Your task to perform on an android device: turn on javascript in the chrome app Image 0: 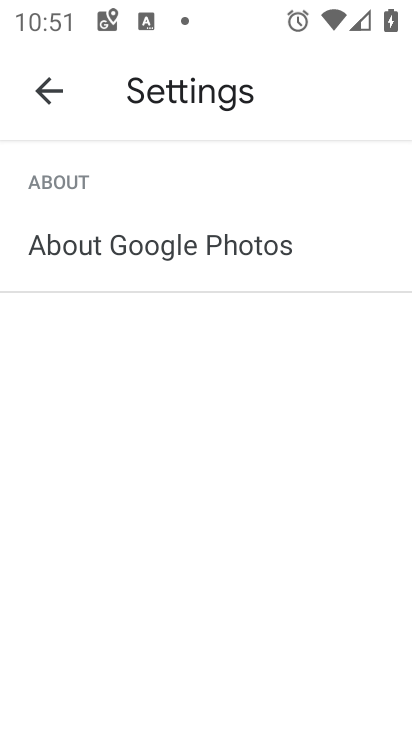
Step 0: drag from (256, 625) to (302, 345)
Your task to perform on an android device: turn on javascript in the chrome app Image 1: 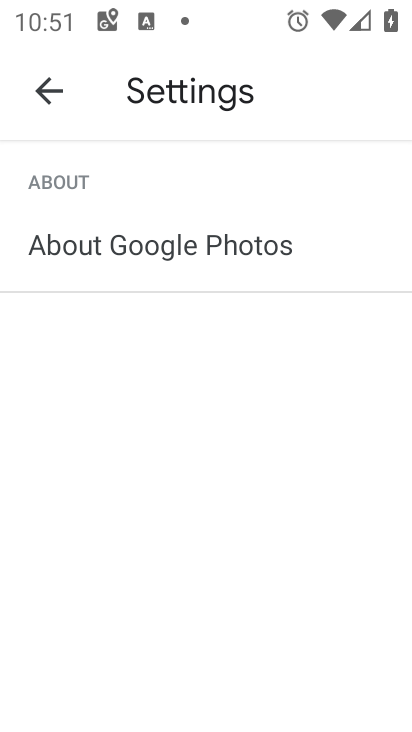
Step 1: press home button
Your task to perform on an android device: turn on javascript in the chrome app Image 2: 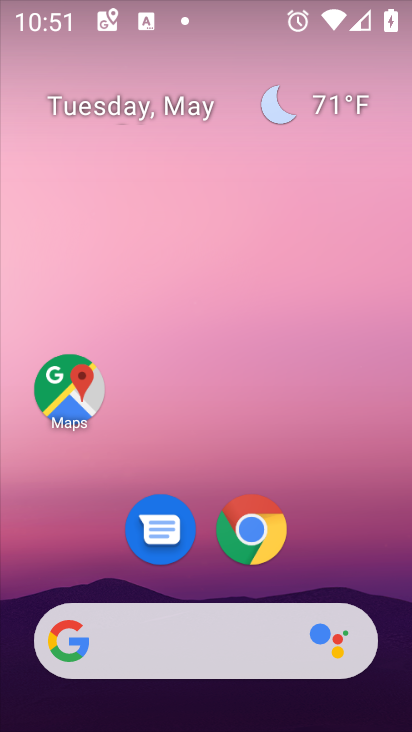
Step 2: drag from (211, 540) to (238, 129)
Your task to perform on an android device: turn on javascript in the chrome app Image 3: 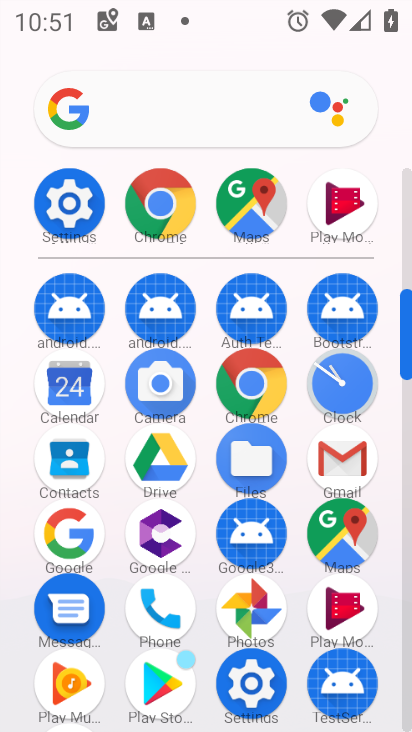
Step 3: click (164, 218)
Your task to perform on an android device: turn on javascript in the chrome app Image 4: 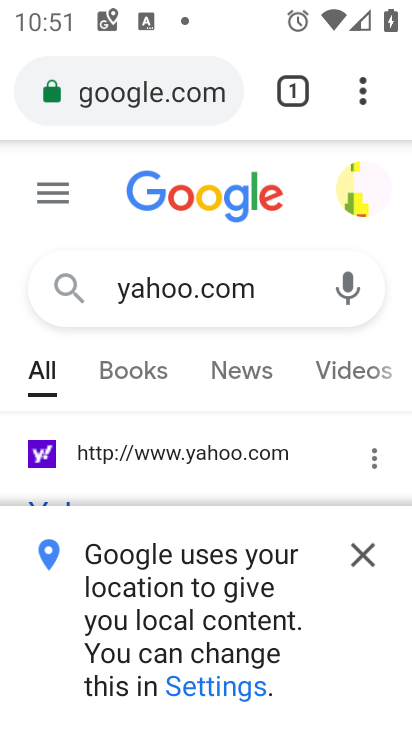
Step 4: click (369, 97)
Your task to perform on an android device: turn on javascript in the chrome app Image 5: 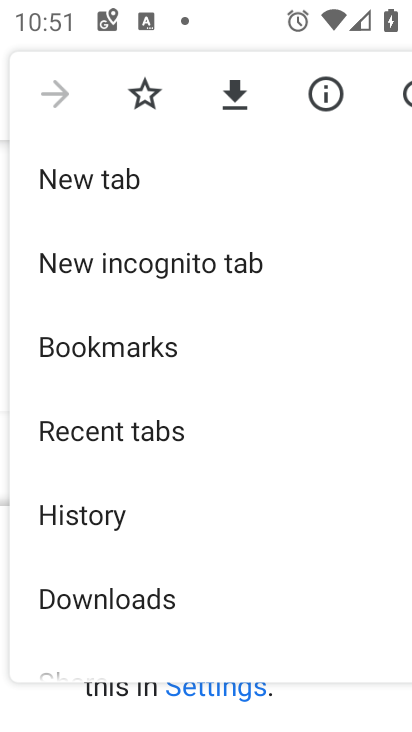
Step 5: drag from (179, 574) to (259, 129)
Your task to perform on an android device: turn on javascript in the chrome app Image 6: 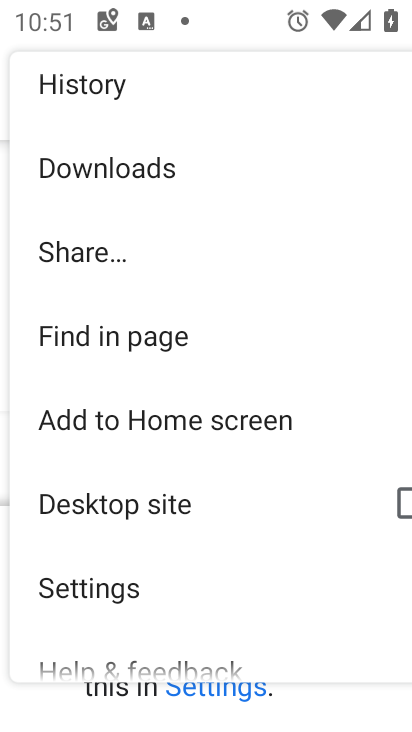
Step 6: click (143, 593)
Your task to perform on an android device: turn on javascript in the chrome app Image 7: 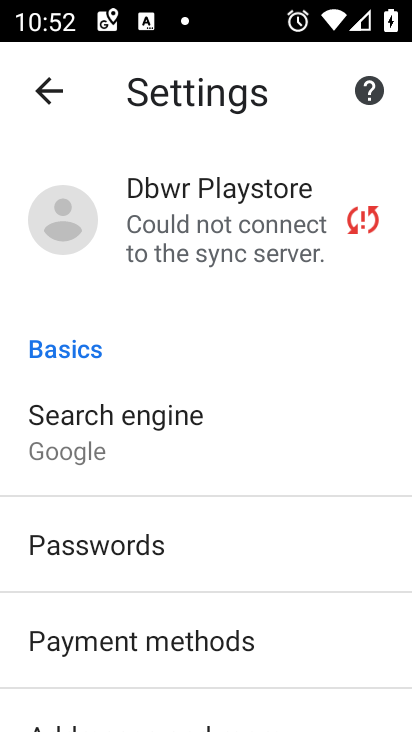
Step 7: drag from (150, 600) to (258, 221)
Your task to perform on an android device: turn on javascript in the chrome app Image 8: 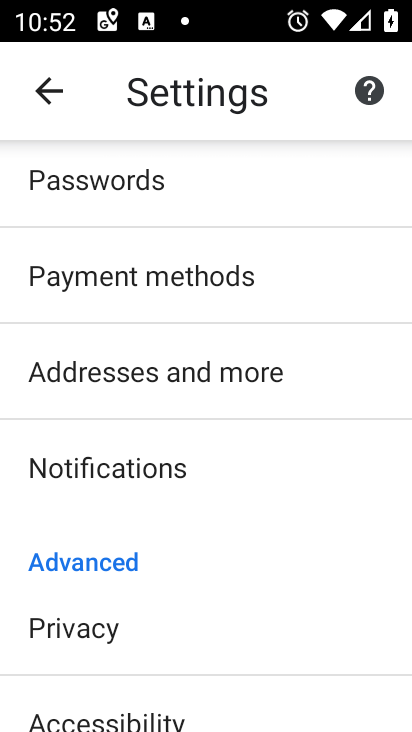
Step 8: drag from (167, 569) to (230, 243)
Your task to perform on an android device: turn on javascript in the chrome app Image 9: 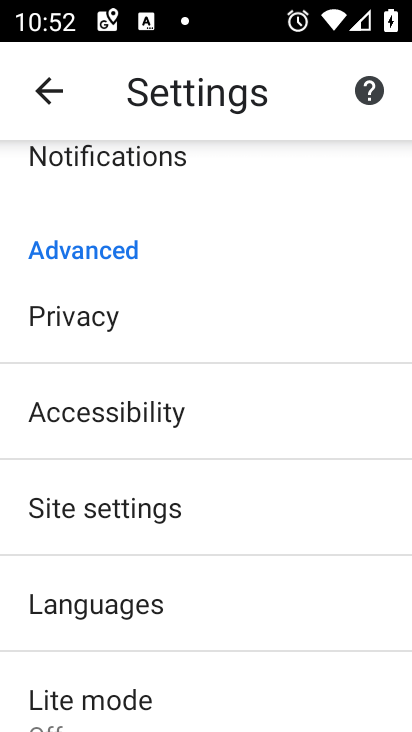
Step 9: click (149, 515)
Your task to perform on an android device: turn on javascript in the chrome app Image 10: 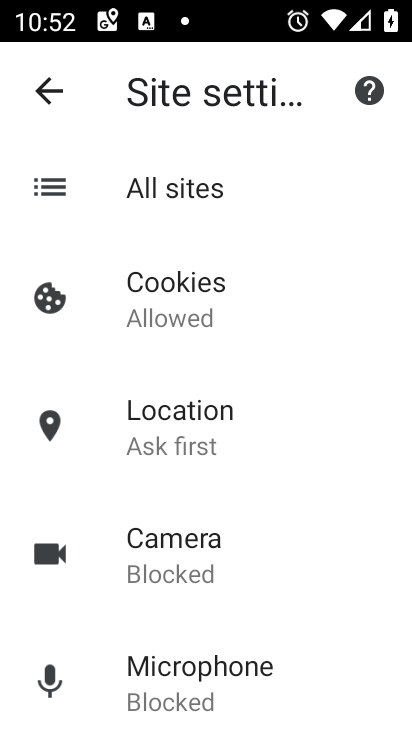
Step 10: drag from (201, 570) to (202, 169)
Your task to perform on an android device: turn on javascript in the chrome app Image 11: 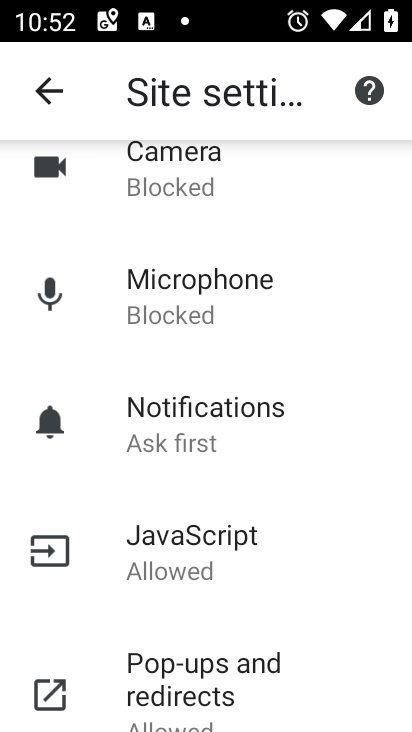
Step 11: click (188, 565)
Your task to perform on an android device: turn on javascript in the chrome app Image 12: 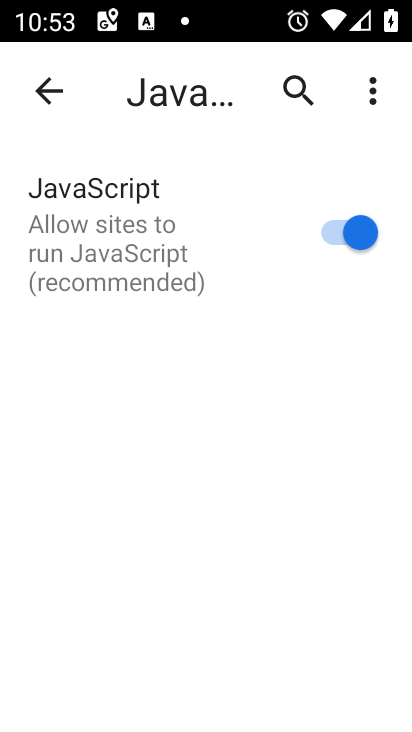
Step 12: task complete